Your task to perform on an android device: turn smart compose on in the gmail app Image 0: 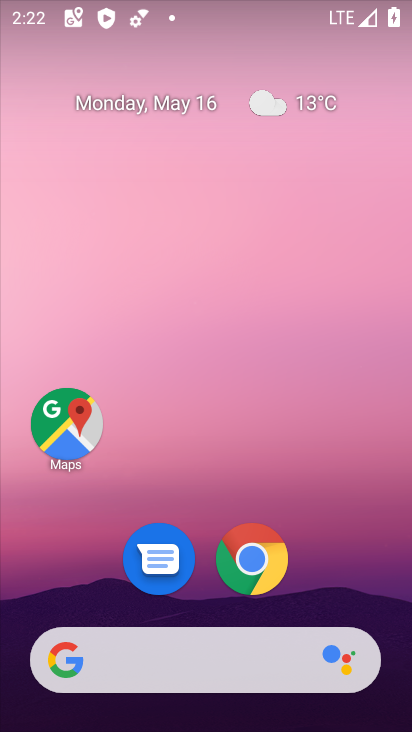
Step 0: drag from (193, 522) to (212, 105)
Your task to perform on an android device: turn smart compose on in the gmail app Image 1: 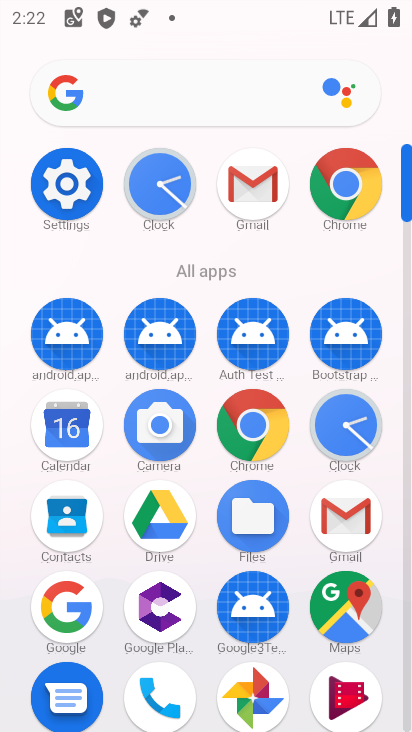
Step 1: click (267, 188)
Your task to perform on an android device: turn smart compose on in the gmail app Image 2: 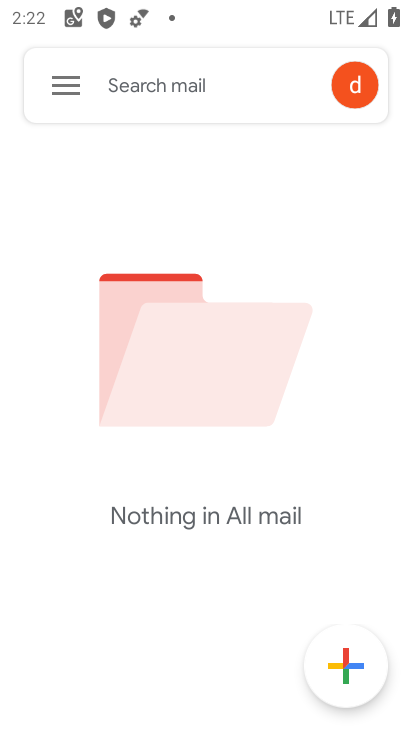
Step 2: click (61, 78)
Your task to perform on an android device: turn smart compose on in the gmail app Image 3: 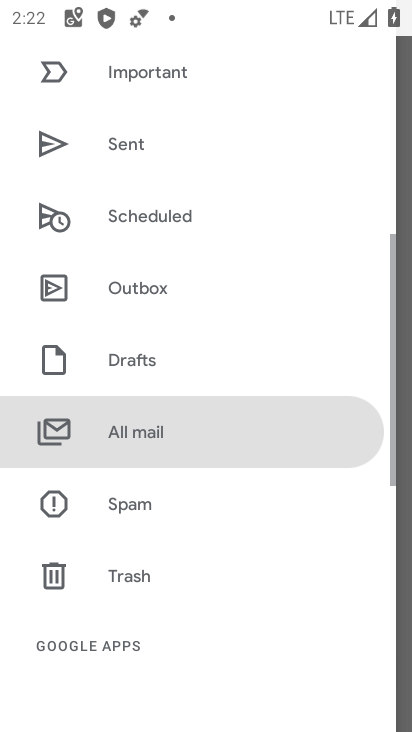
Step 3: drag from (132, 606) to (185, 36)
Your task to perform on an android device: turn smart compose on in the gmail app Image 4: 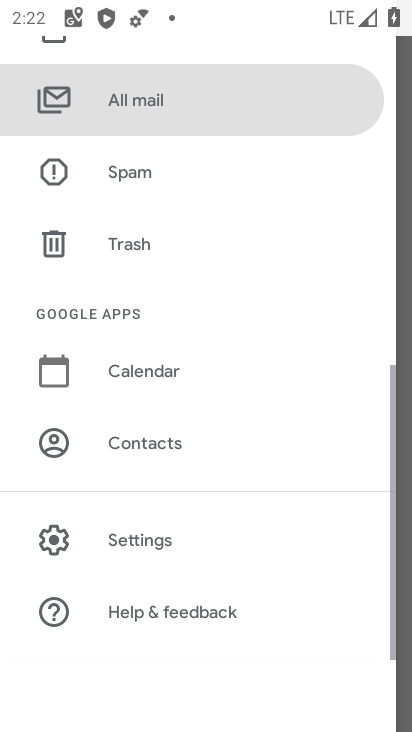
Step 4: click (112, 541)
Your task to perform on an android device: turn smart compose on in the gmail app Image 5: 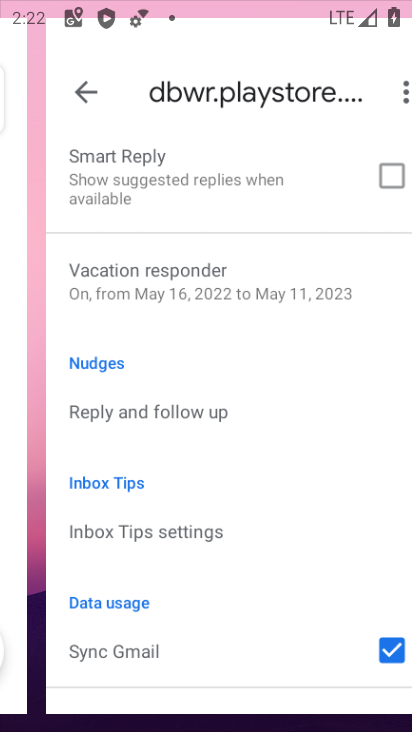
Step 5: task complete